Your task to perform on an android device: turn off translation in the chrome app Image 0: 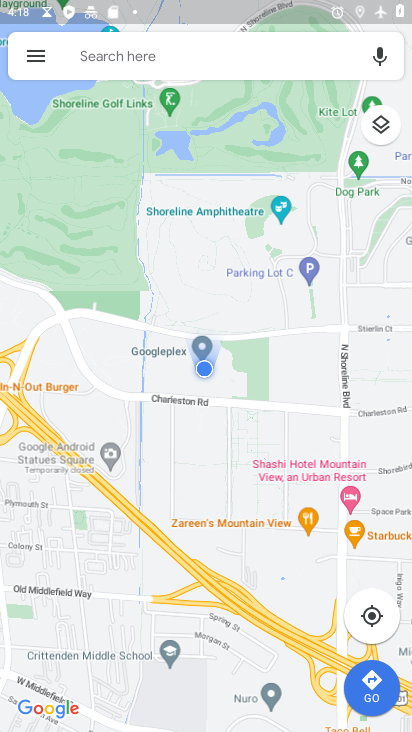
Step 0: click (39, 63)
Your task to perform on an android device: turn off translation in the chrome app Image 1: 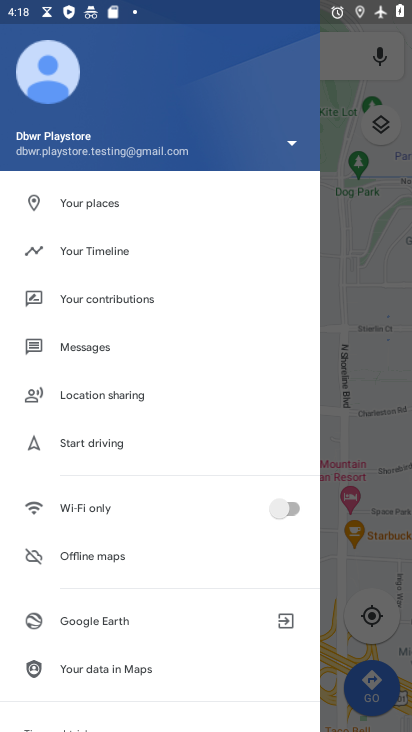
Step 1: click (99, 244)
Your task to perform on an android device: turn off translation in the chrome app Image 2: 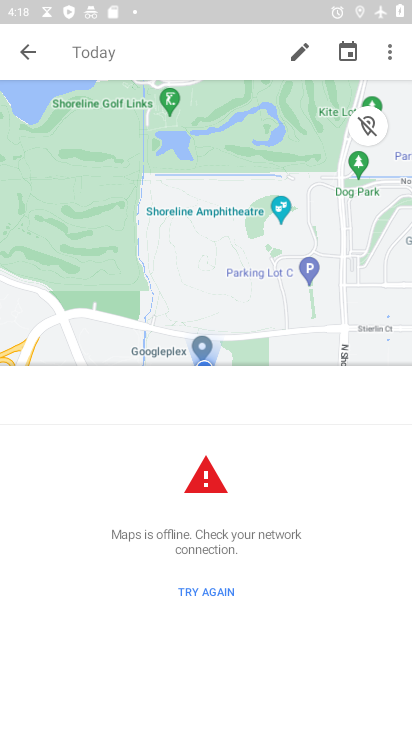
Step 2: click (28, 46)
Your task to perform on an android device: turn off translation in the chrome app Image 3: 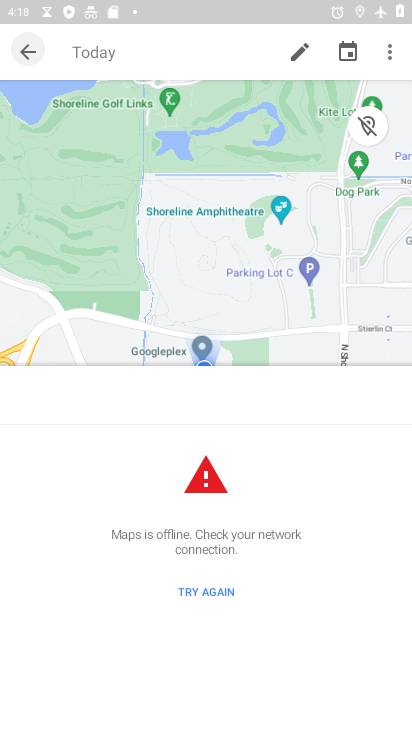
Step 3: click (29, 45)
Your task to perform on an android device: turn off translation in the chrome app Image 4: 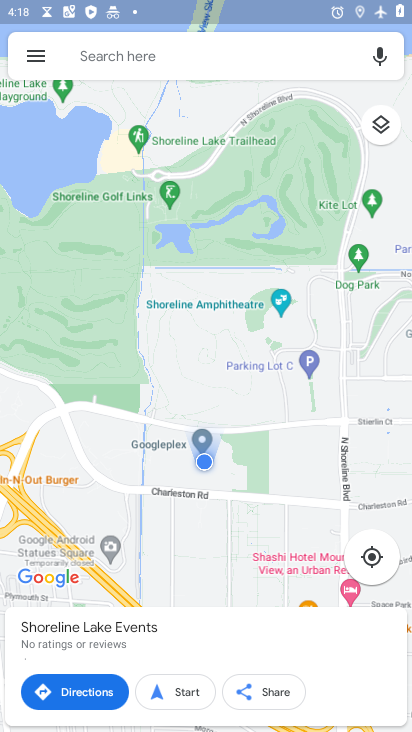
Step 4: press back button
Your task to perform on an android device: turn off translation in the chrome app Image 5: 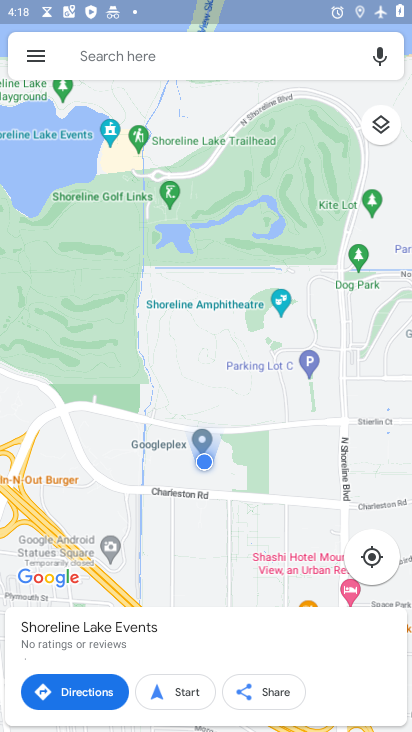
Step 5: press back button
Your task to perform on an android device: turn off translation in the chrome app Image 6: 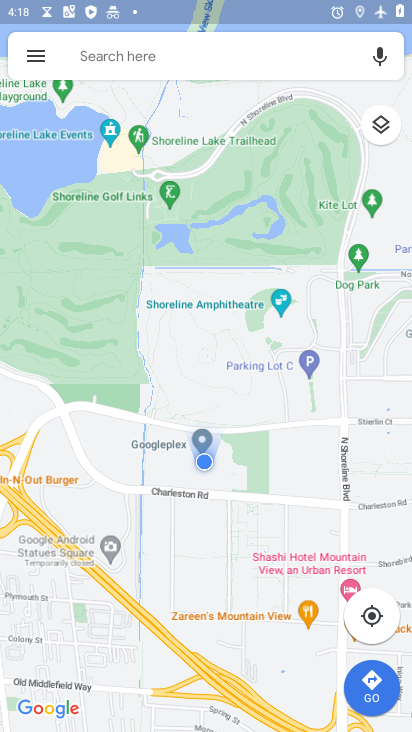
Step 6: press back button
Your task to perform on an android device: turn off translation in the chrome app Image 7: 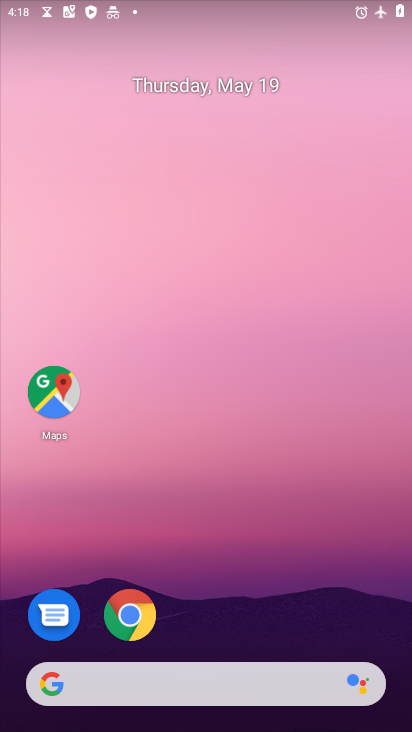
Step 7: drag from (228, 616) to (43, 0)
Your task to perform on an android device: turn off translation in the chrome app Image 8: 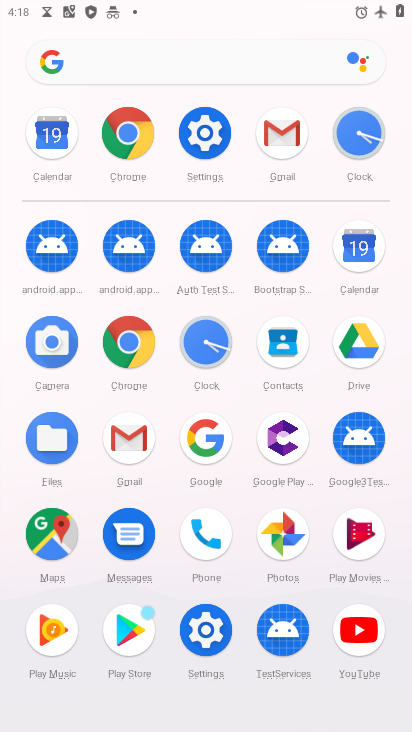
Step 8: click (127, 145)
Your task to perform on an android device: turn off translation in the chrome app Image 9: 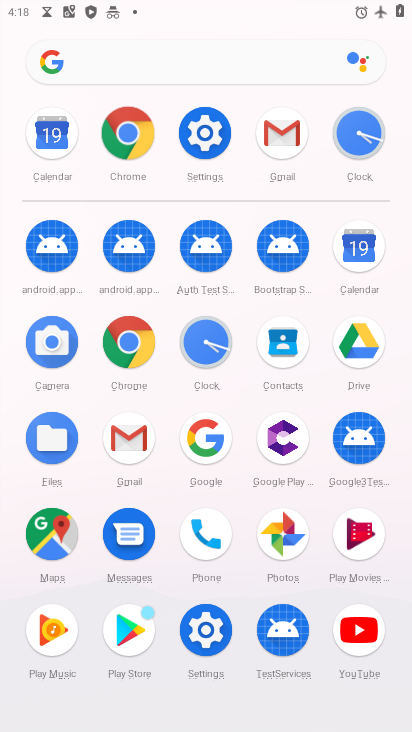
Step 9: click (128, 143)
Your task to perform on an android device: turn off translation in the chrome app Image 10: 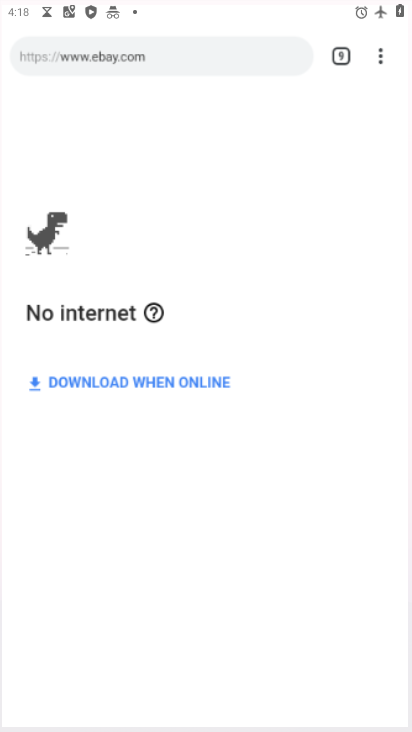
Step 10: click (129, 143)
Your task to perform on an android device: turn off translation in the chrome app Image 11: 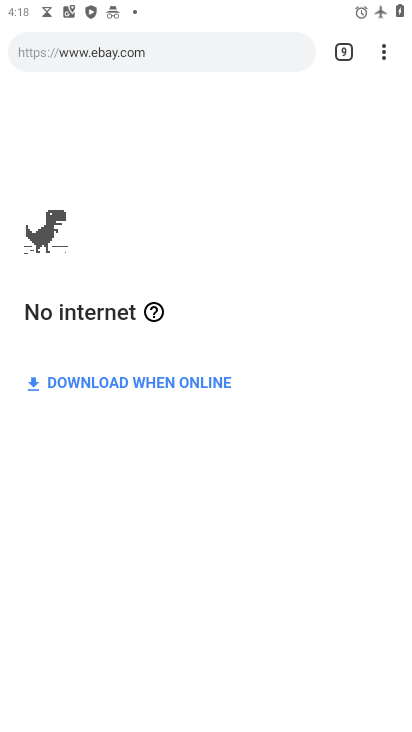
Step 11: task complete